Your task to perform on an android device: check the backup settings in the google photos Image 0: 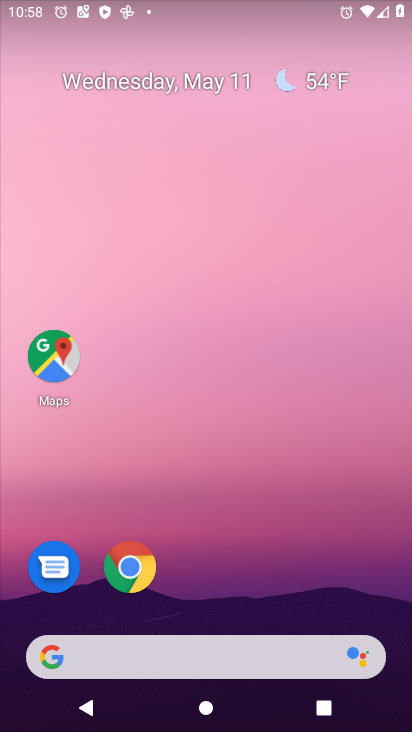
Step 0: drag from (233, 613) to (306, 6)
Your task to perform on an android device: check the backup settings in the google photos Image 1: 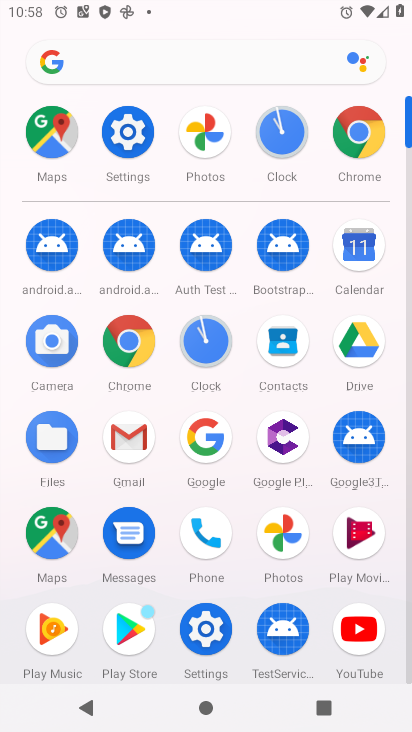
Step 1: click (293, 534)
Your task to perform on an android device: check the backup settings in the google photos Image 2: 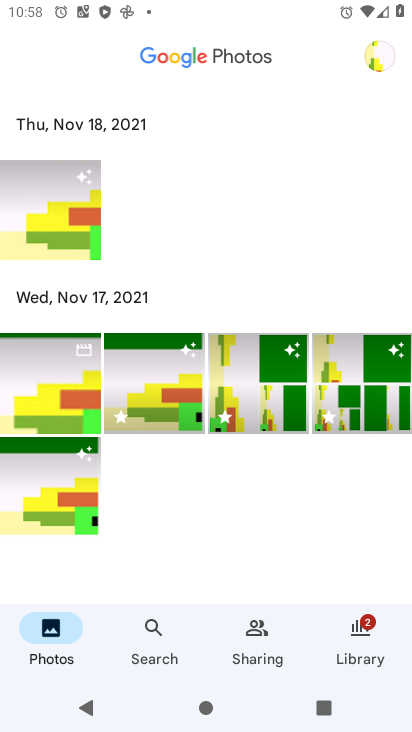
Step 2: click (395, 46)
Your task to perform on an android device: check the backup settings in the google photos Image 3: 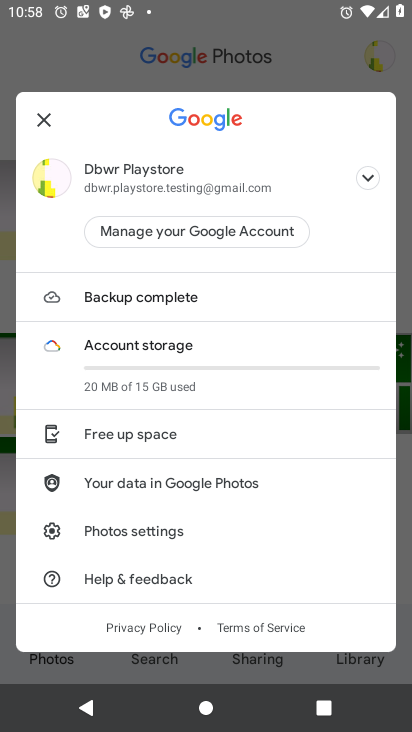
Step 3: click (167, 529)
Your task to perform on an android device: check the backup settings in the google photos Image 4: 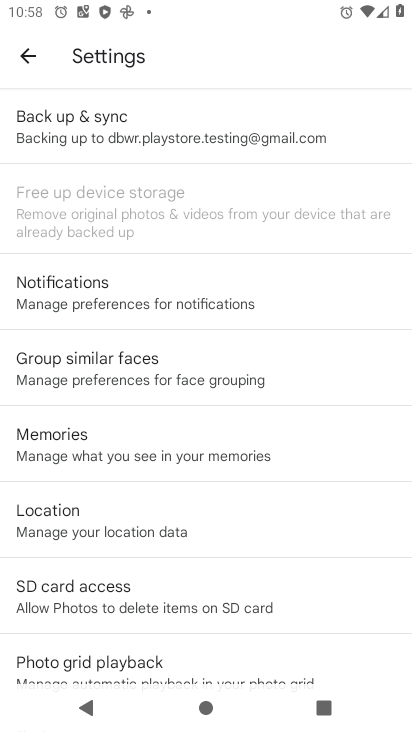
Step 4: click (127, 119)
Your task to perform on an android device: check the backup settings in the google photos Image 5: 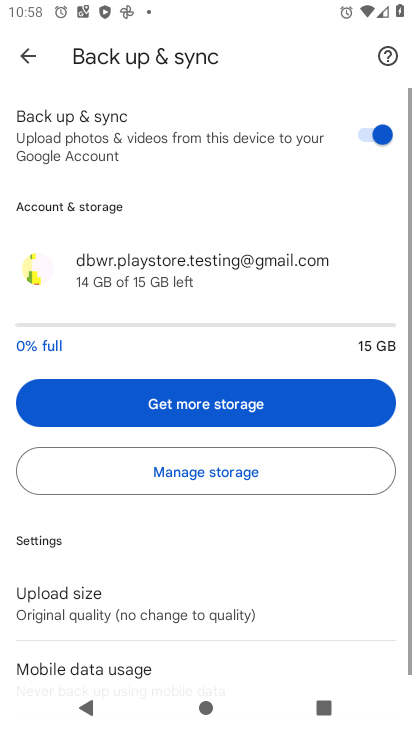
Step 5: task complete